Your task to perform on an android device: Turn on notifications for the Google Maps app Image 0: 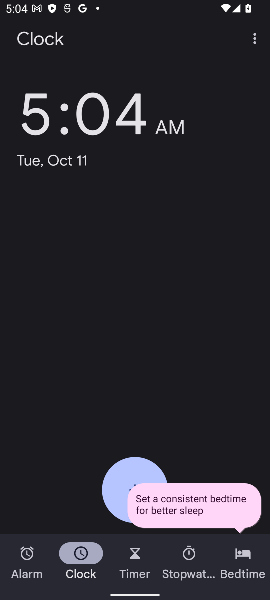
Step 0: press home button
Your task to perform on an android device: Turn on notifications for the Google Maps app Image 1: 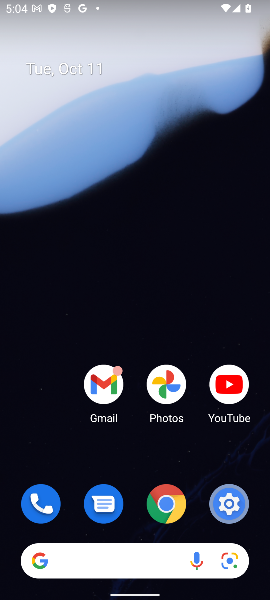
Step 1: drag from (163, 464) to (202, 173)
Your task to perform on an android device: Turn on notifications for the Google Maps app Image 2: 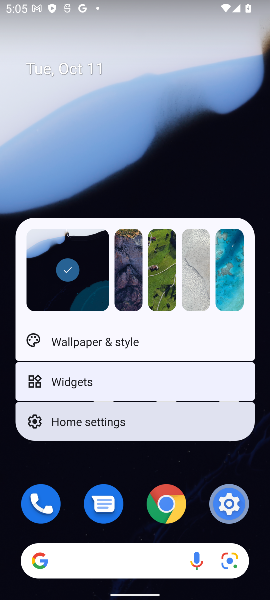
Step 2: click (139, 463)
Your task to perform on an android device: Turn on notifications for the Google Maps app Image 3: 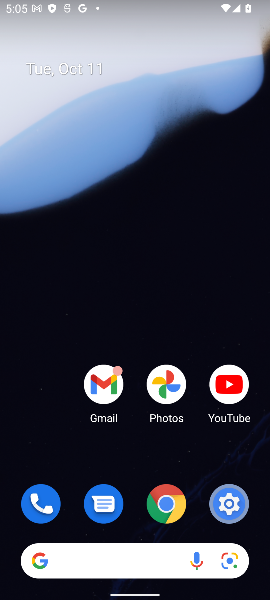
Step 3: drag from (73, 470) to (99, 58)
Your task to perform on an android device: Turn on notifications for the Google Maps app Image 4: 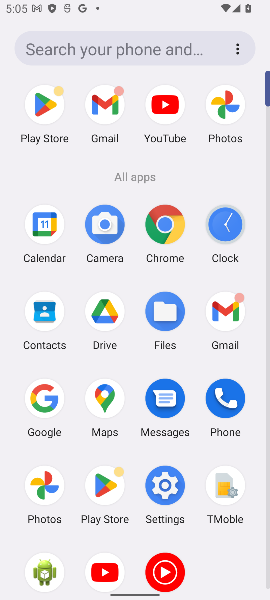
Step 4: click (110, 403)
Your task to perform on an android device: Turn on notifications for the Google Maps app Image 5: 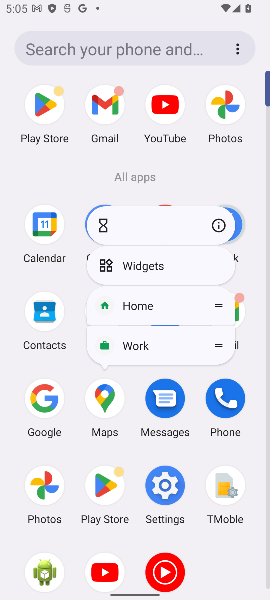
Step 5: click (227, 220)
Your task to perform on an android device: Turn on notifications for the Google Maps app Image 6: 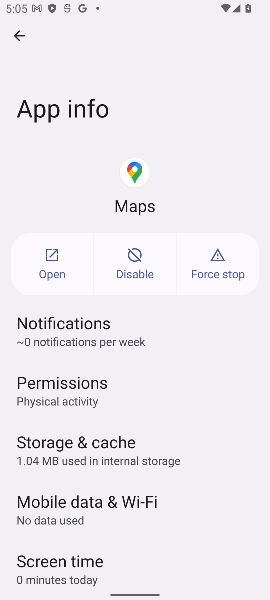
Step 6: click (64, 330)
Your task to perform on an android device: Turn on notifications for the Google Maps app Image 7: 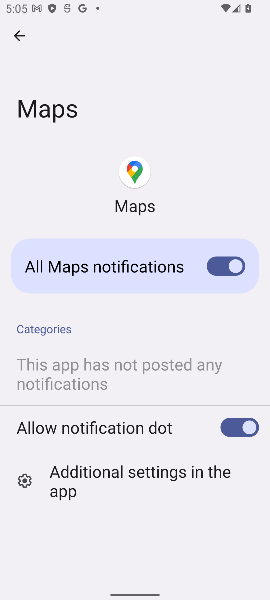
Step 7: task complete